Your task to perform on an android device: Open Maps and search for coffee Image 0: 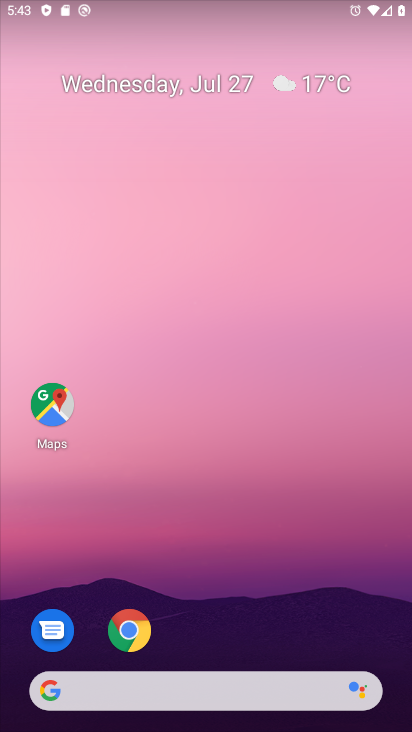
Step 0: press home button
Your task to perform on an android device: Open Maps and search for coffee Image 1: 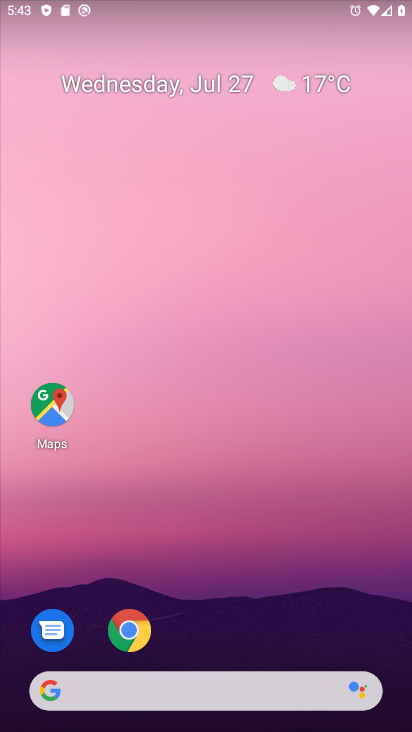
Step 1: click (51, 397)
Your task to perform on an android device: Open Maps and search for coffee Image 2: 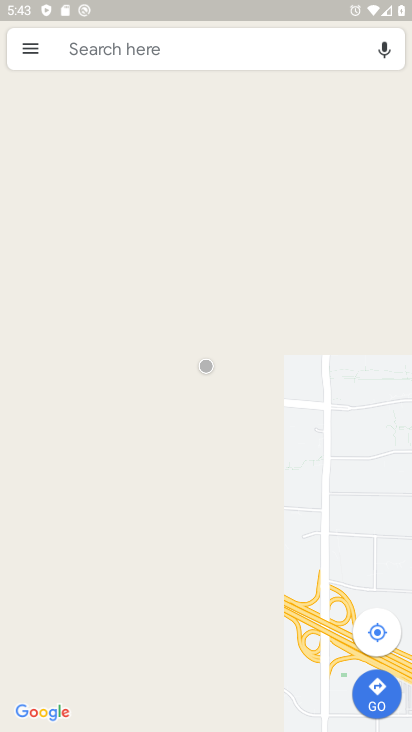
Step 2: click (135, 42)
Your task to perform on an android device: Open Maps and search for coffee Image 3: 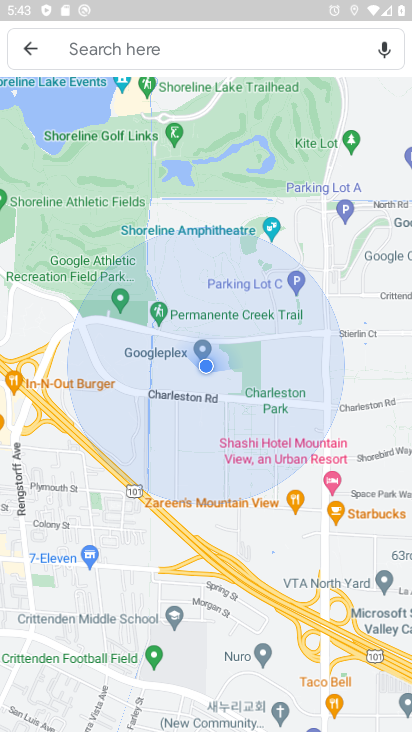
Step 3: click (126, 40)
Your task to perform on an android device: Open Maps and search for coffee Image 4: 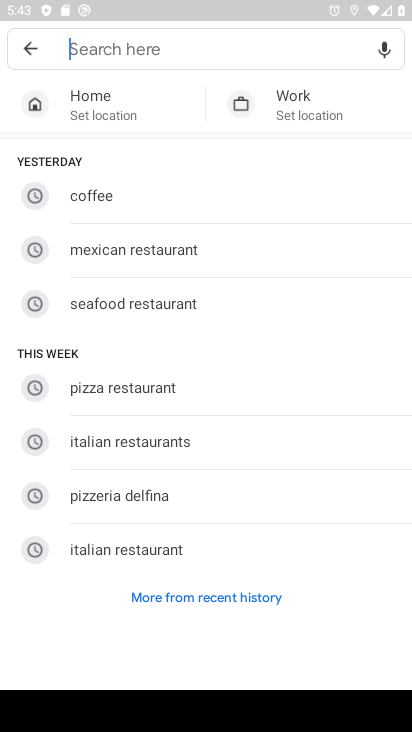
Step 4: click (122, 194)
Your task to perform on an android device: Open Maps and search for coffee Image 5: 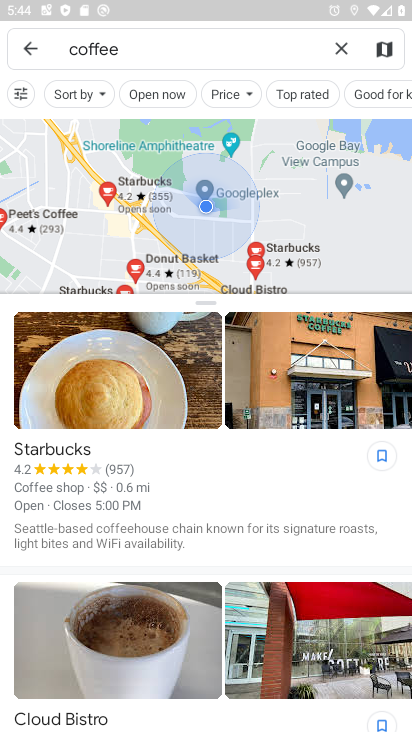
Step 5: task complete